Your task to perform on an android device: Go to Android settings Image 0: 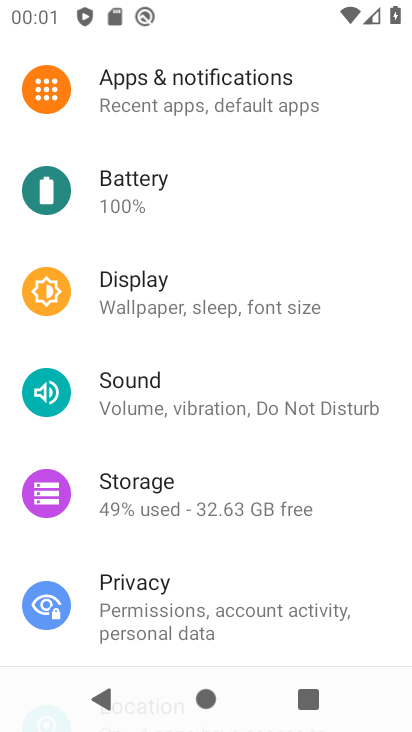
Step 0: drag from (337, 376) to (323, 245)
Your task to perform on an android device: Go to Android settings Image 1: 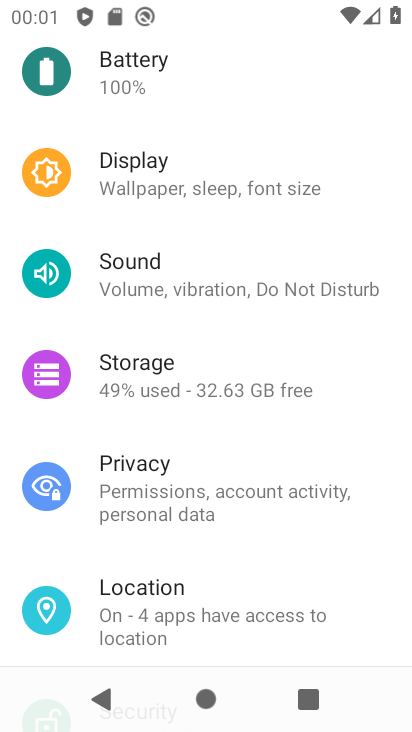
Step 1: task complete